Your task to perform on an android device: When is my next meeting? Image 0: 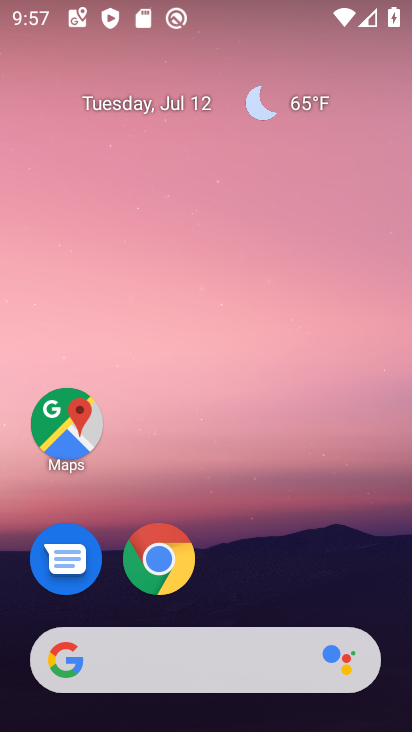
Step 0: drag from (326, 580) to (328, 91)
Your task to perform on an android device: When is my next meeting? Image 1: 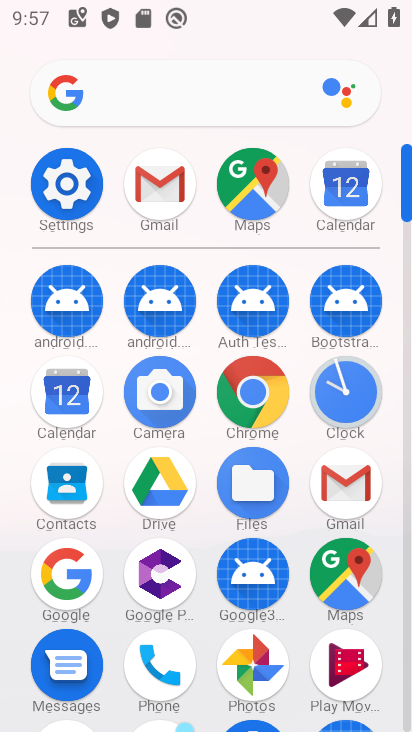
Step 1: click (63, 394)
Your task to perform on an android device: When is my next meeting? Image 2: 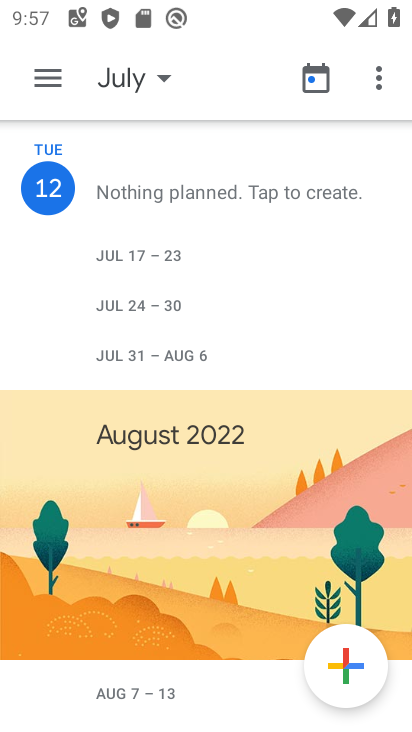
Step 2: click (162, 78)
Your task to perform on an android device: When is my next meeting? Image 3: 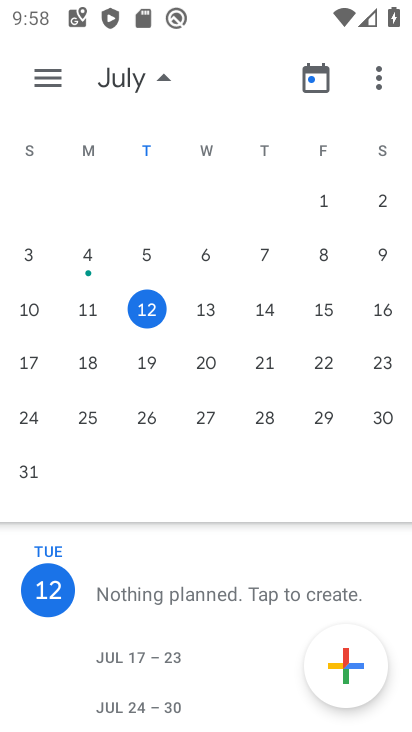
Step 3: task complete